Your task to perform on an android device: Is it going to rain this weekend? Image 0: 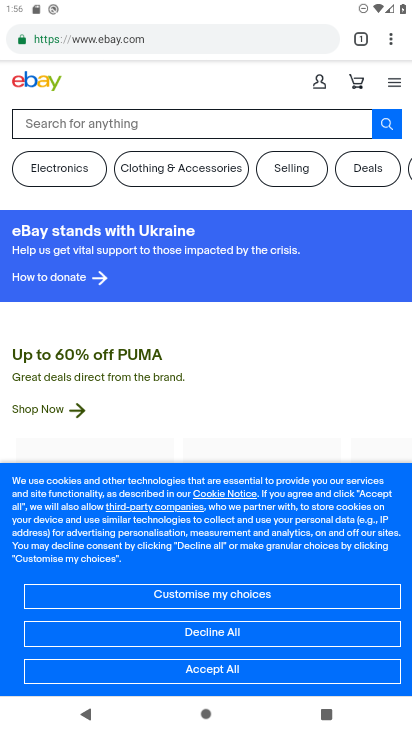
Step 0: press home button
Your task to perform on an android device: Is it going to rain this weekend? Image 1: 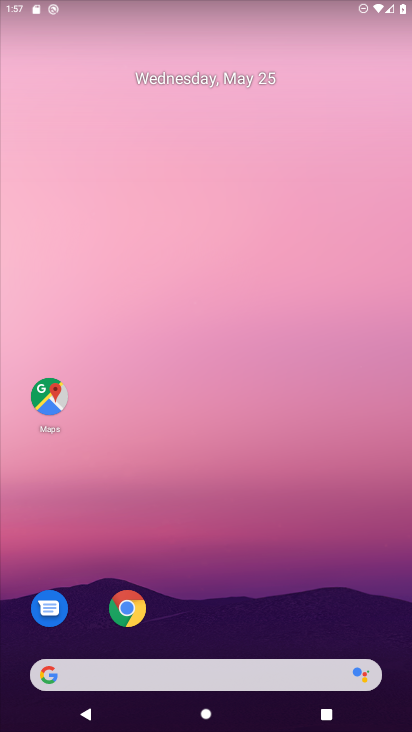
Step 1: drag from (191, 658) to (243, 269)
Your task to perform on an android device: Is it going to rain this weekend? Image 2: 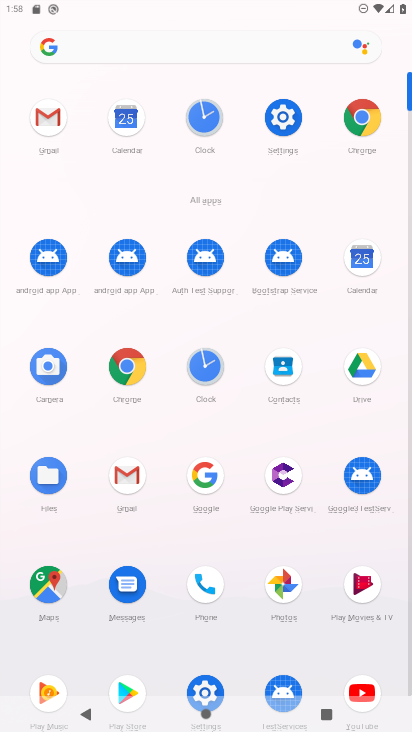
Step 2: click (200, 474)
Your task to perform on an android device: Is it going to rain this weekend? Image 3: 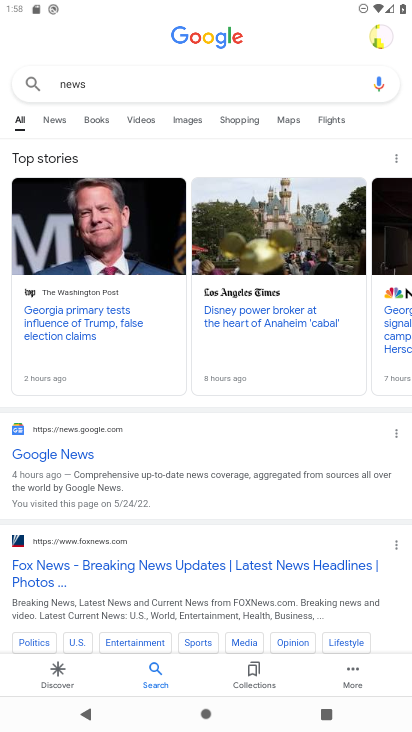
Step 3: click (42, 90)
Your task to perform on an android device: Is it going to rain this weekend? Image 4: 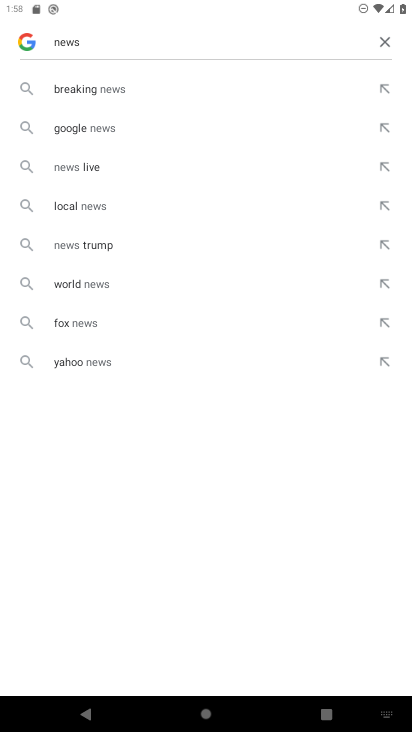
Step 4: click (391, 40)
Your task to perform on an android device: Is it going to rain this weekend? Image 5: 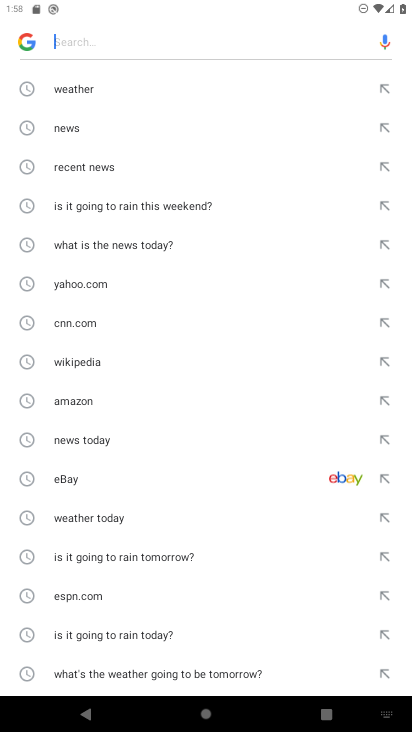
Step 5: click (180, 208)
Your task to perform on an android device: Is it going to rain this weekend? Image 6: 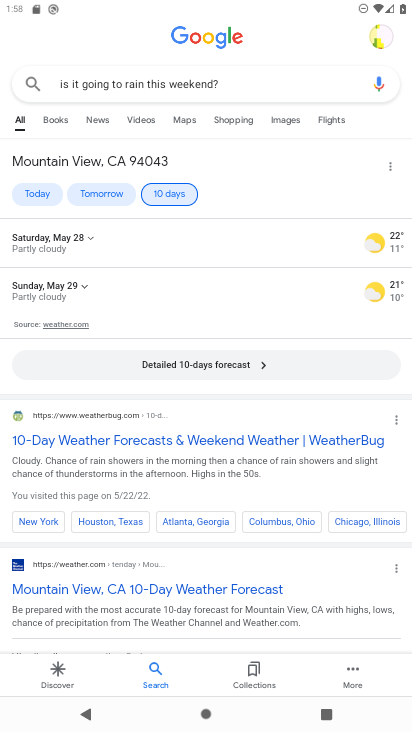
Step 6: task complete